Your task to perform on an android device: Open Google Maps Image 0: 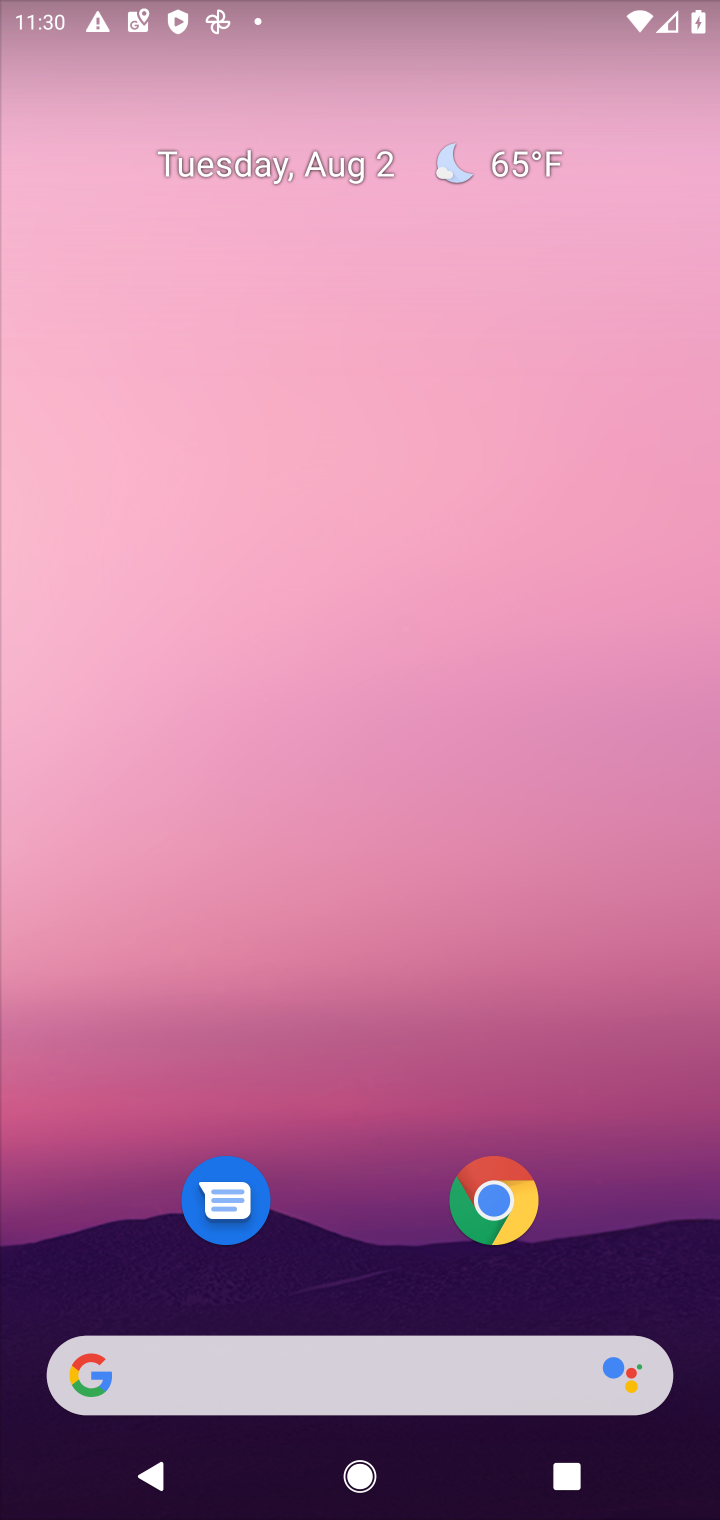
Step 0: drag from (648, 1295) to (622, 97)
Your task to perform on an android device: Open Google Maps Image 1: 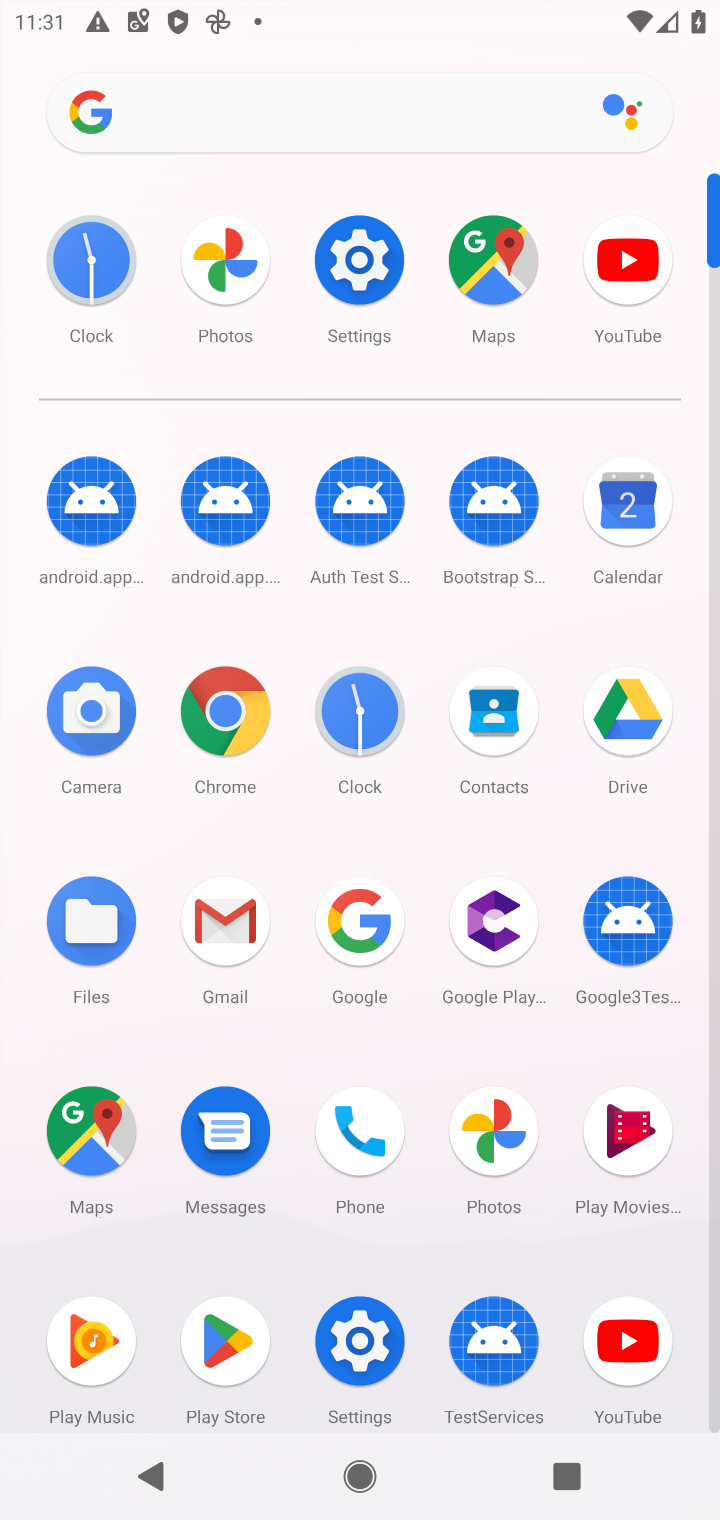
Step 1: click (84, 1127)
Your task to perform on an android device: Open Google Maps Image 2: 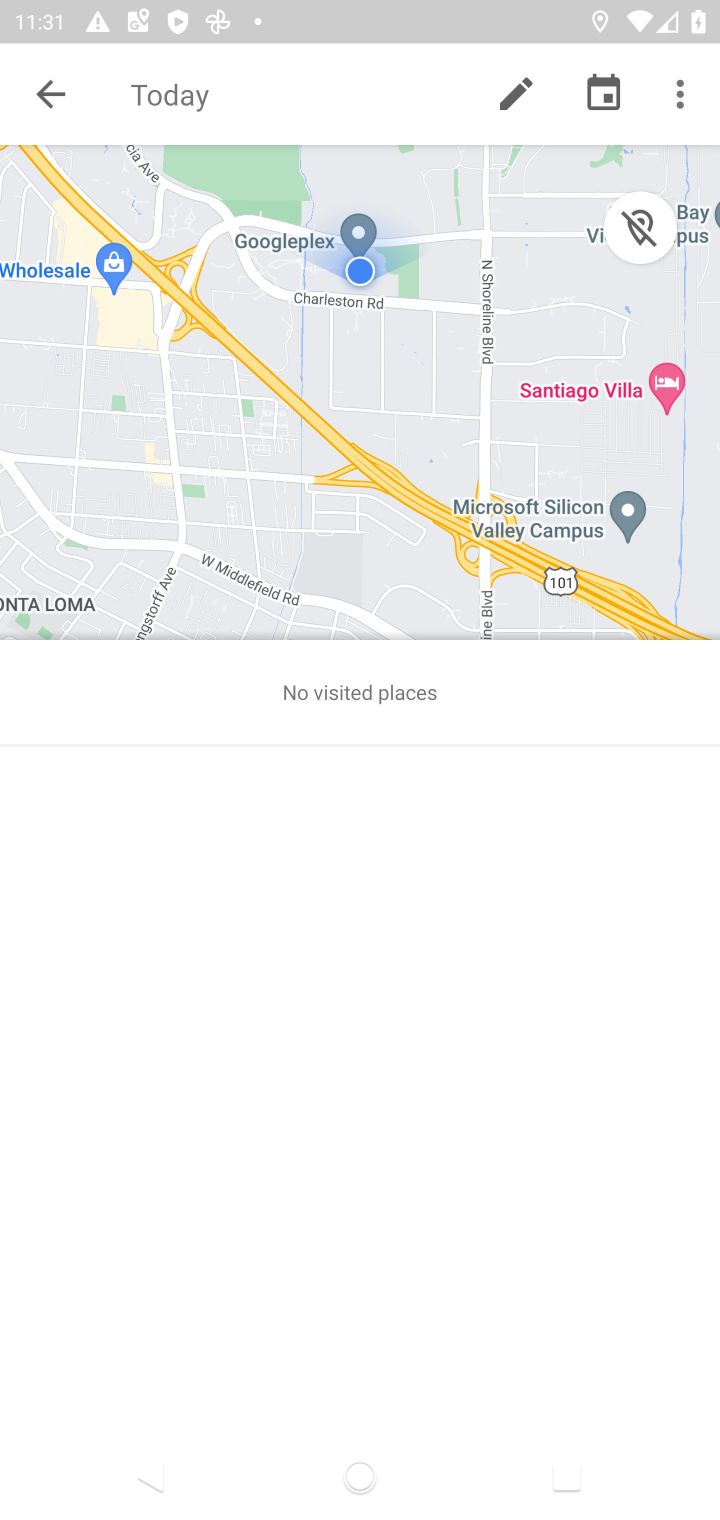
Step 2: task complete